Your task to perform on an android device: turn vacation reply on in the gmail app Image 0: 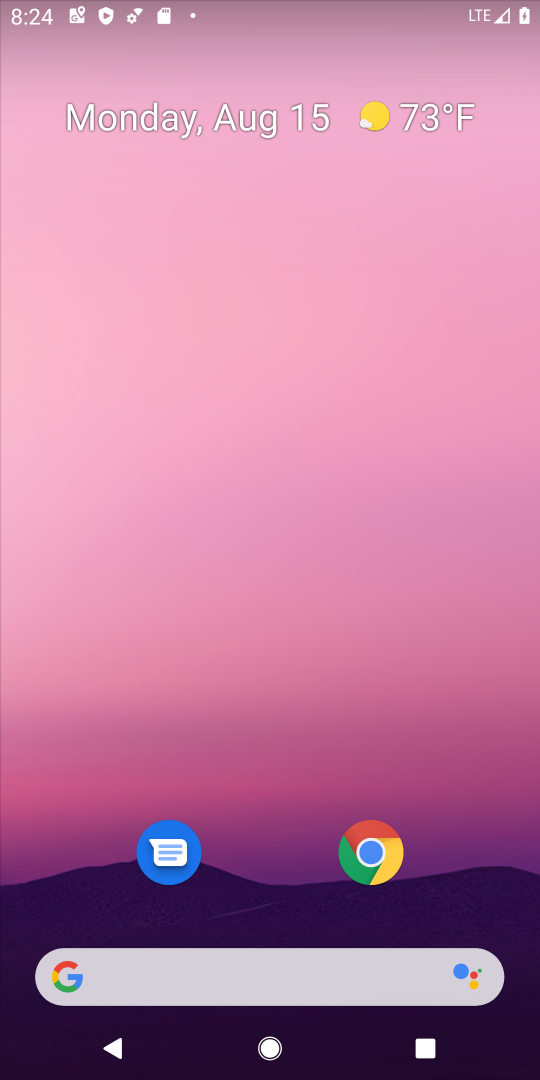
Step 0: drag from (260, 962) to (376, 72)
Your task to perform on an android device: turn vacation reply on in the gmail app Image 1: 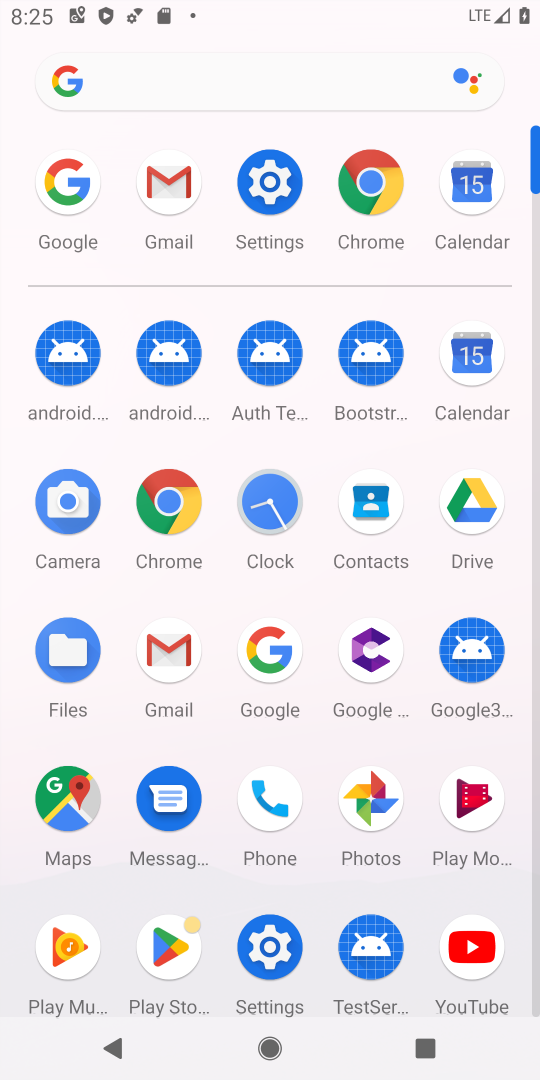
Step 1: click (166, 180)
Your task to perform on an android device: turn vacation reply on in the gmail app Image 2: 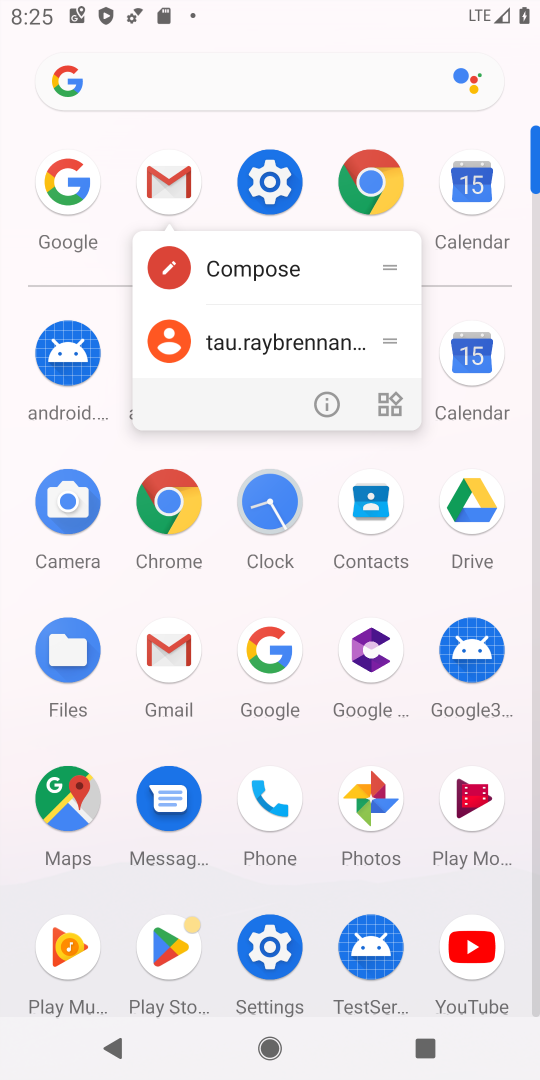
Step 2: click (166, 180)
Your task to perform on an android device: turn vacation reply on in the gmail app Image 3: 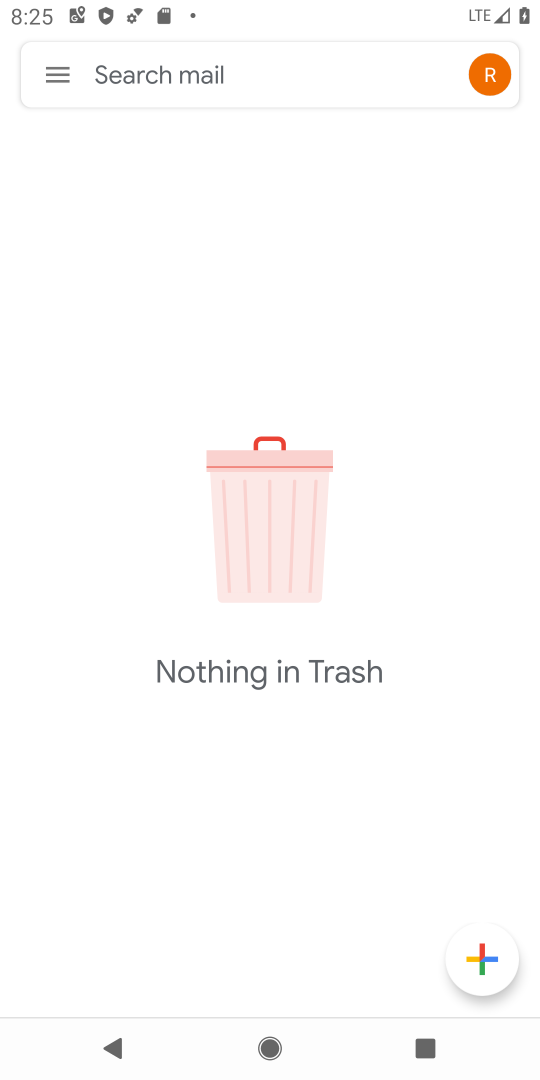
Step 3: click (57, 75)
Your task to perform on an android device: turn vacation reply on in the gmail app Image 4: 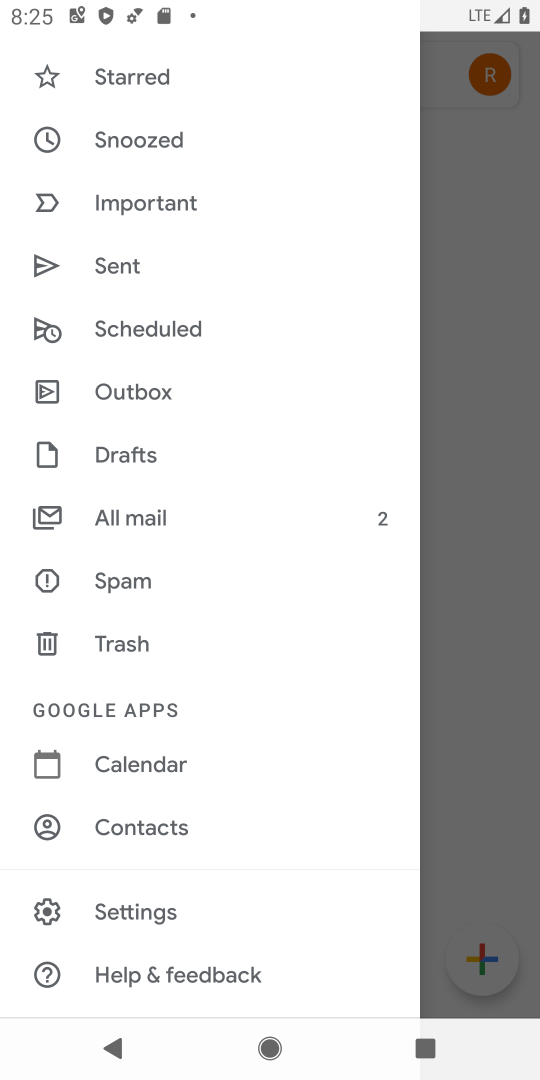
Step 4: click (165, 909)
Your task to perform on an android device: turn vacation reply on in the gmail app Image 5: 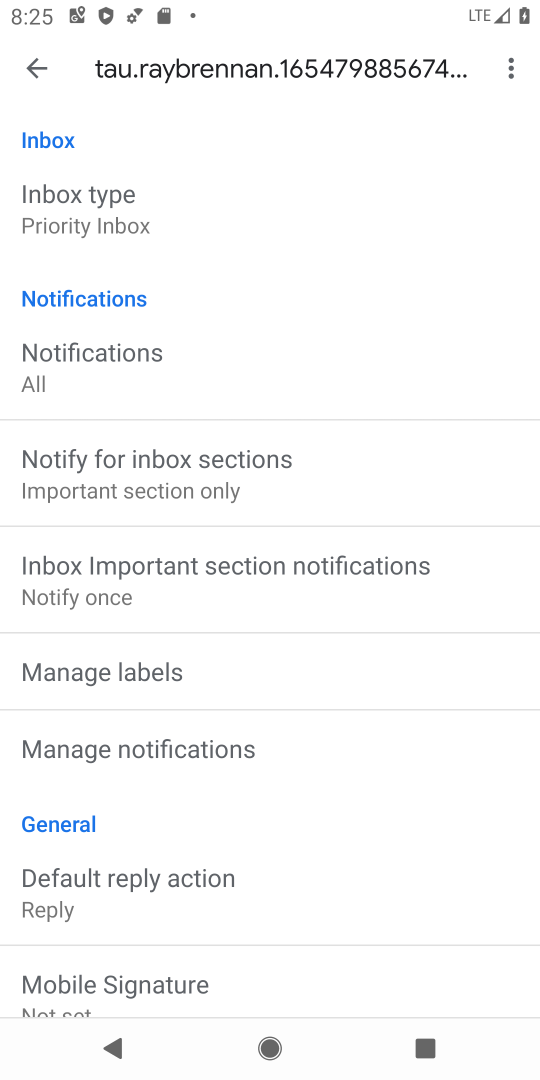
Step 5: drag from (174, 796) to (276, 628)
Your task to perform on an android device: turn vacation reply on in the gmail app Image 6: 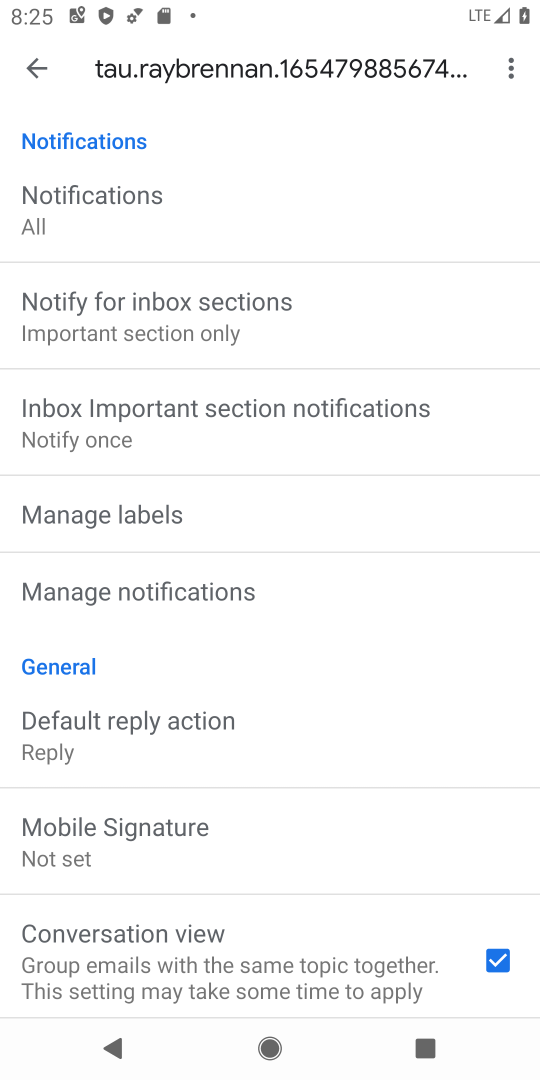
Step 6: drag from (172, 924) to (267, 759)
Your task to perform on an android device: turn vacation reply on in the gmail app Image 7: 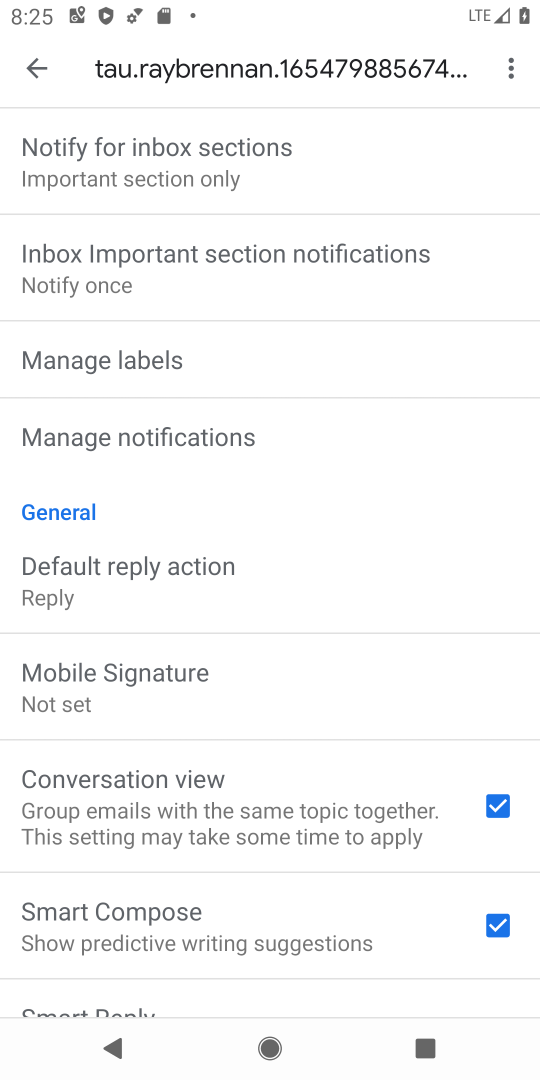
Step 7: drag from (170, 977) to (279, 775)
Your task to perform on an android device: turn vacation reply on in the gmail app Image 8: 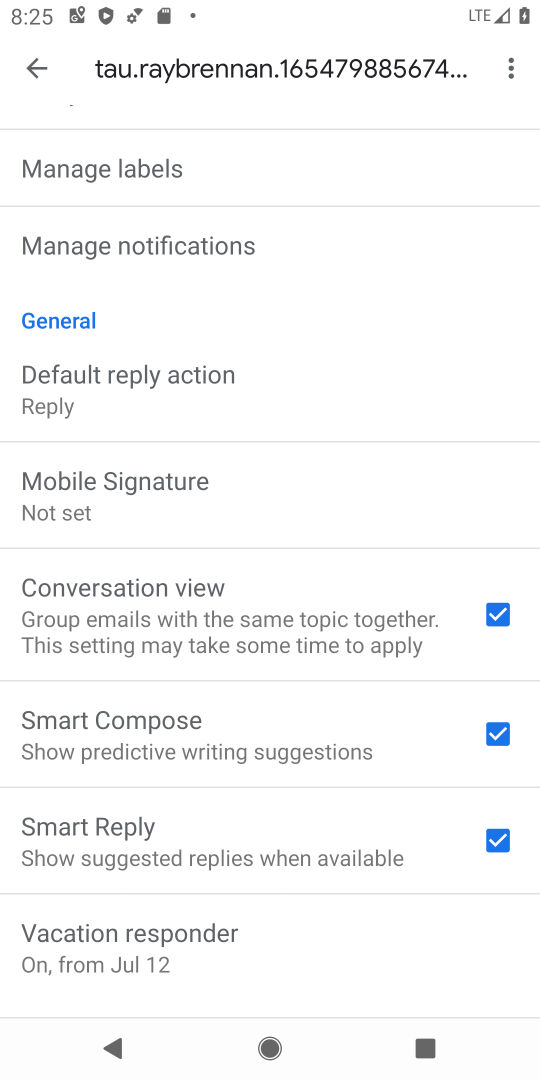
Step 8: drag from (203, 905) to (334, 719)
Your task to perform on an android device: turn vacation reply on in the gmail app Image 9: 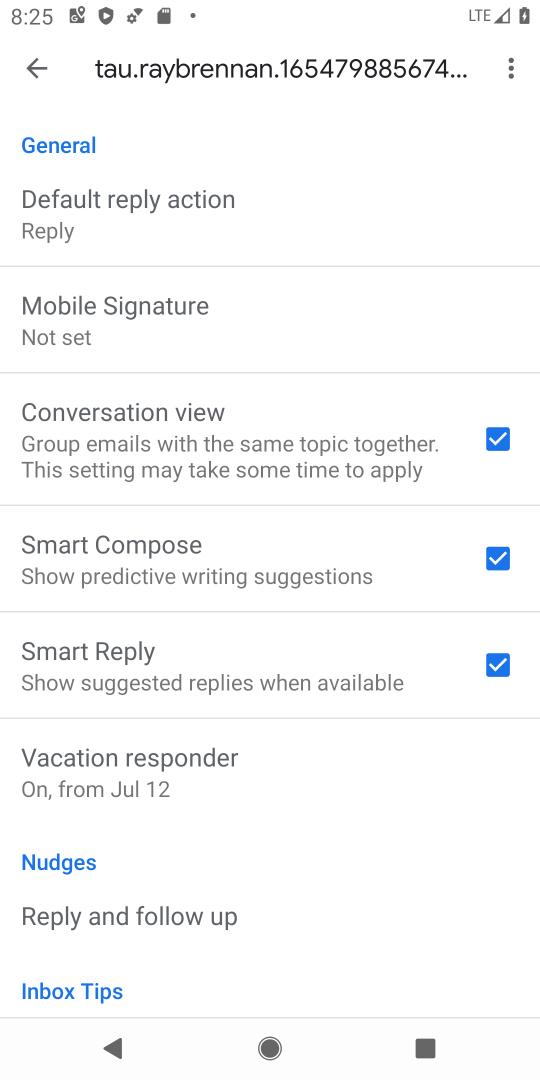
Step 9: click (134, 775)
Your task to perform on an android device: turn vacation reply on in the gmail app Image 10: 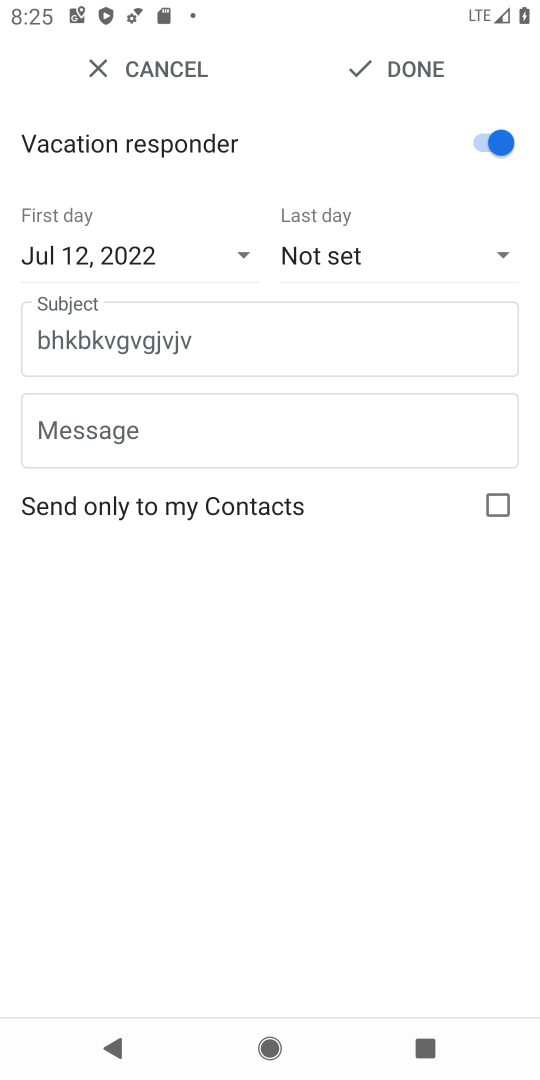
Step 10: task complete